Your task to perform on an android device: open chrome and create a bookmark for the current page Image 0: 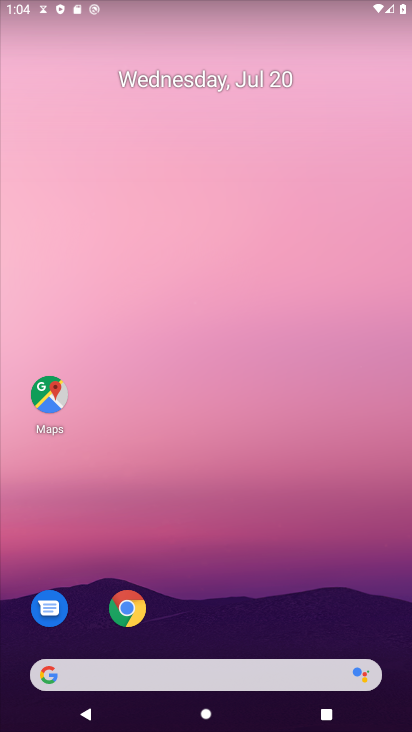
Step 0: click (126, 609)
Your task to perform on an android device: open chrome and create a bookmark for the current page Image 1: 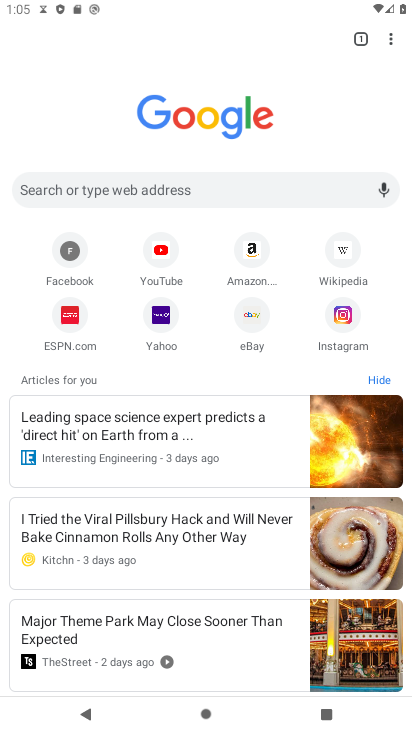
Step 1: click (390, 39)
Your task to perform on an android device: open chrome and create a bookmark for the current page Image 2: 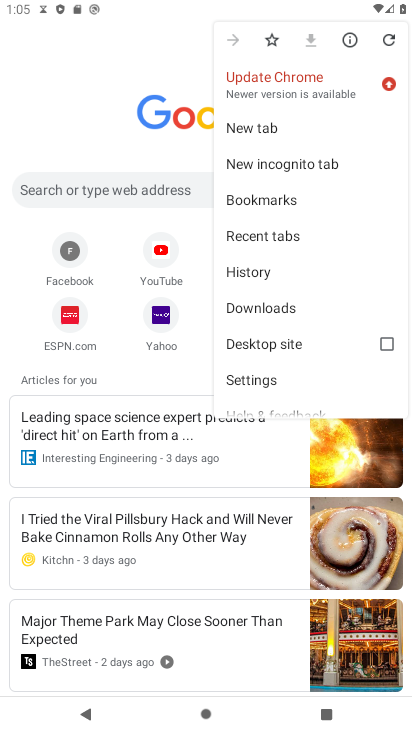
Step 2: click (273, 36)
Your task to perform on an android device: open chrome and create a bookmark for the current page Image 3: 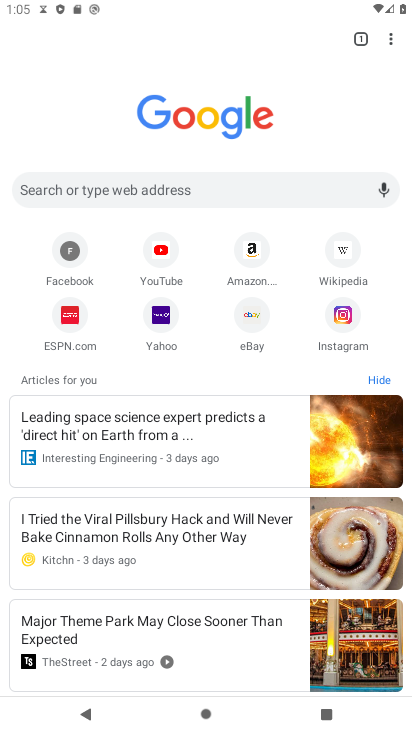
Step 3: task complete